Your task to perform on an android device: turn notification dots on Image 0: 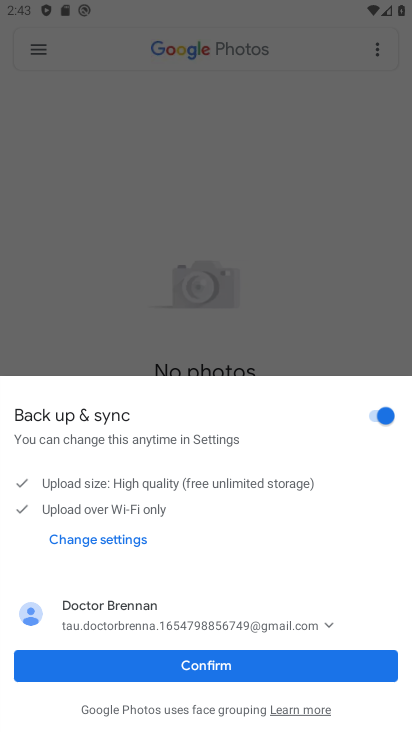
Step 0: press home button
Your task to perform on an android device: turn notification dots on Image 1: 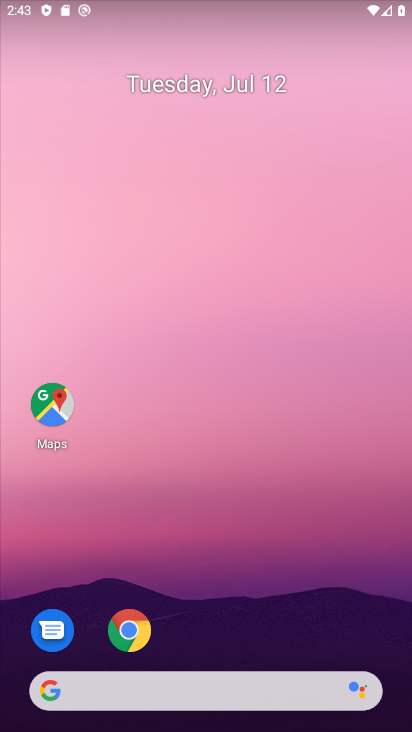
Step 1: drag from (314, 675) to (363, 72)
Your task to perform on an android device: turn notification dots on Image 2: 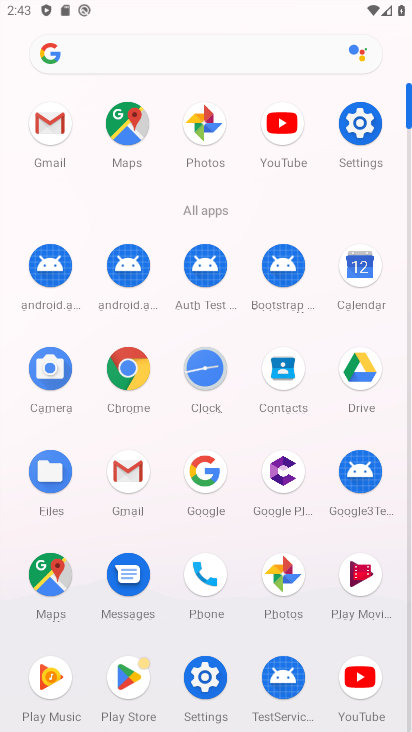
Step 2: click (370, 134)
Your task to perform on an android device: turn notification dots on Image 3: 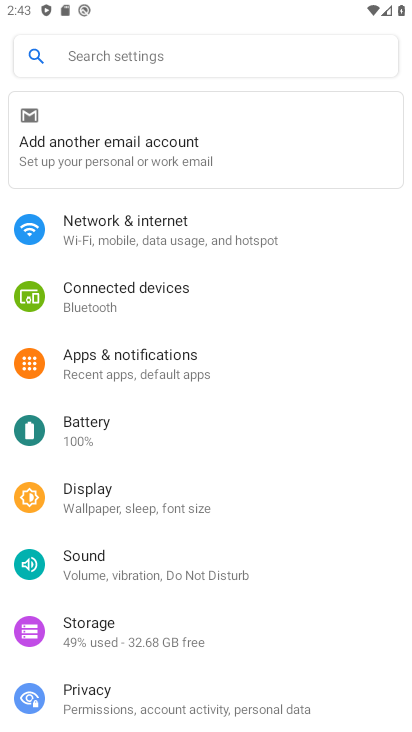
Step 3: click (161, 353)
Your task to perform on an android device: turn notification dots on Image 4: 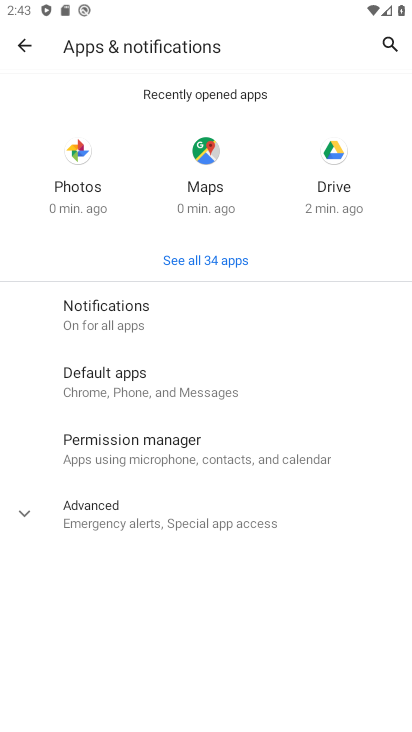
Step 4: click (169, 314)
Your task to perform on an android device: turn notification dots on Image 5: 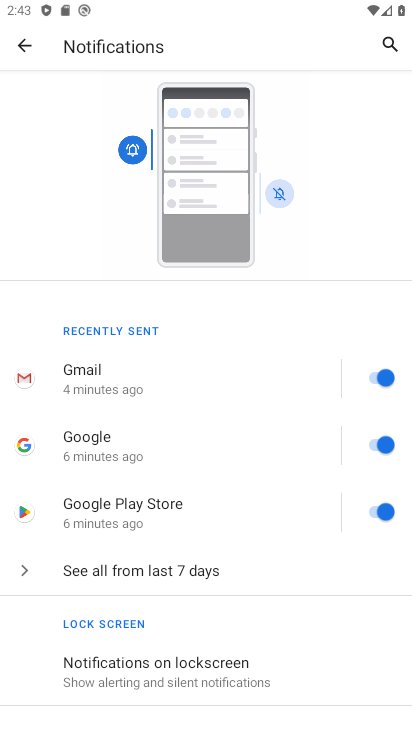
Step 5: drag from (172, 667) to (215, 308)
Your task to perform on an android device: turn notification dots on Image 6: 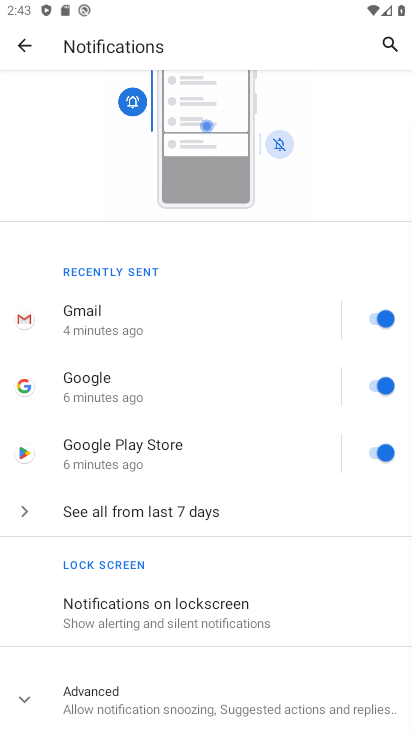
Step 6: click (194, 704)
Your task to perform on an android device: turn notification dots on Image 7: 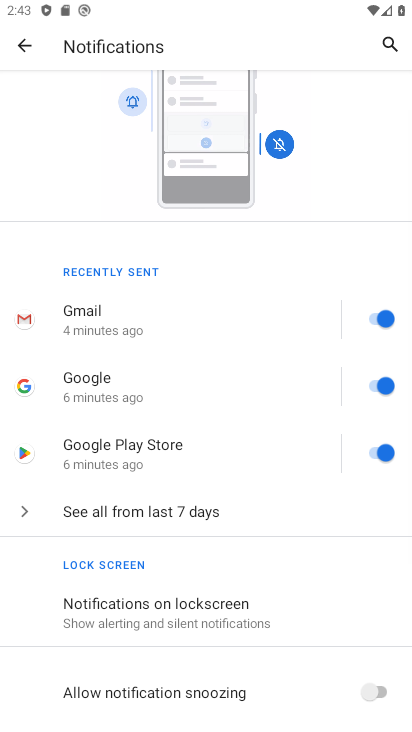
Step 7: task complete